Your task to perform on an android device: empty trash in the gmail app Image 0: 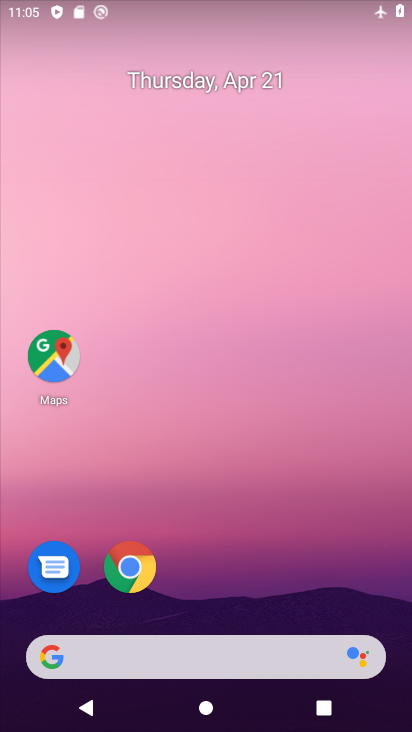
Step 0: drag from (205, 594) to (285, 5)
Your task to perform on an android device: empty trash in the gmail app Image 1: 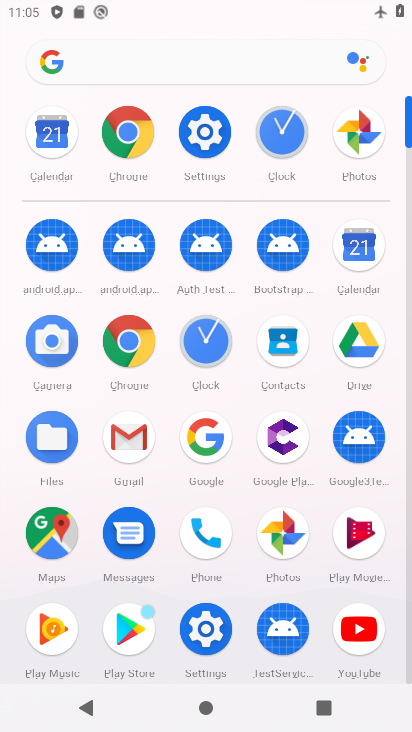
Step 1: click (133, 439)
Your task to perform on an android device: empty trash in the gmail app Image 2: 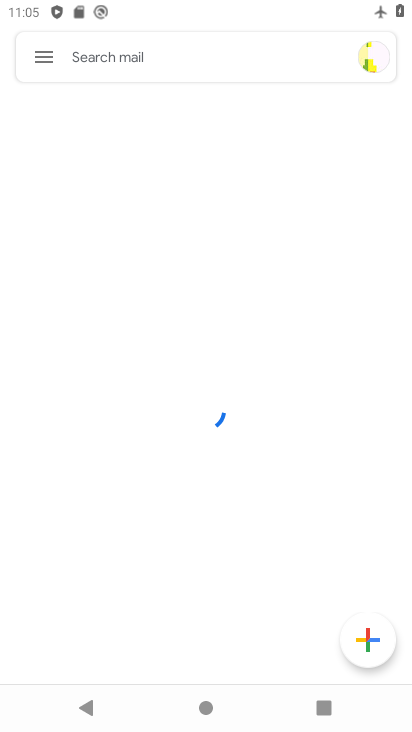
Step 2: click (46, 56)
Your task to perform on an android device: empty trash in the gmail app Image 3: 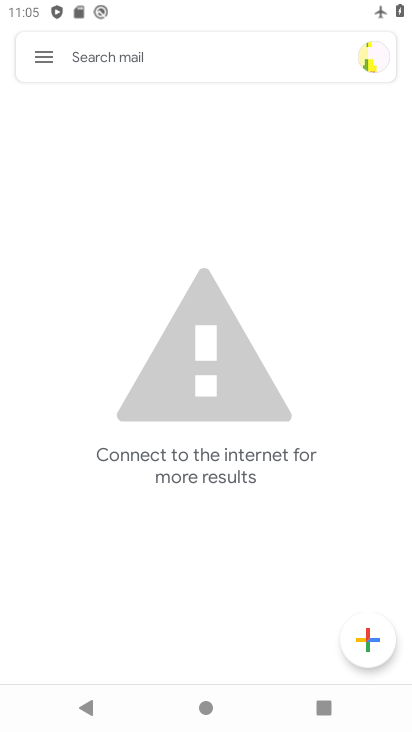
Step 3: click (49, 58)
Your task to perform on an android device: empty trash in the gmail app Image 4: 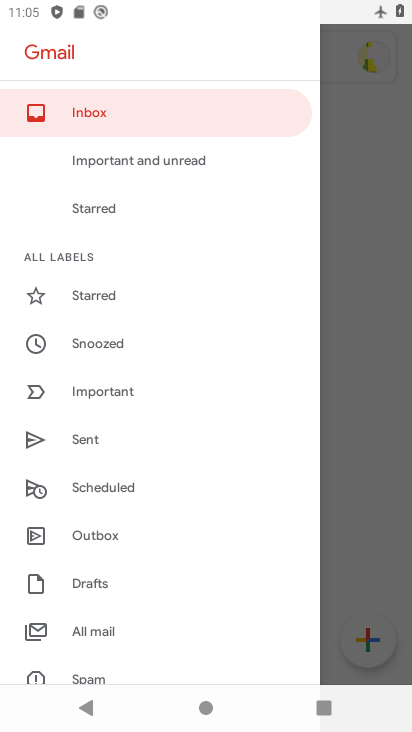
Step 4: drag from (98, 632) to (152, 317)
Your task to perform on an android device: empty trash in the gmail app Image 5: 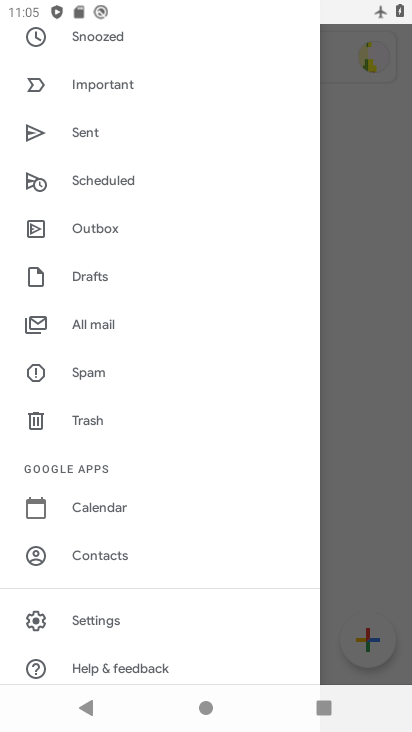
Step 5: click (78, 420)
Your task to perform on an android device: empty trash in the gmail app Image 6: 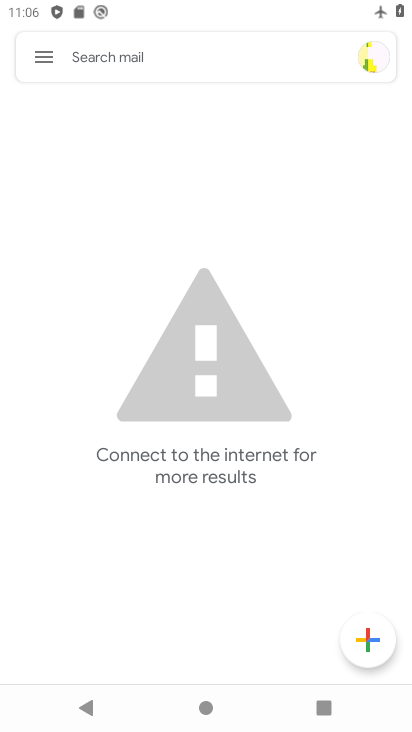
Step 6: task complete